Your task to perform on an android device: turn pop-ups on in chrome Image 0: 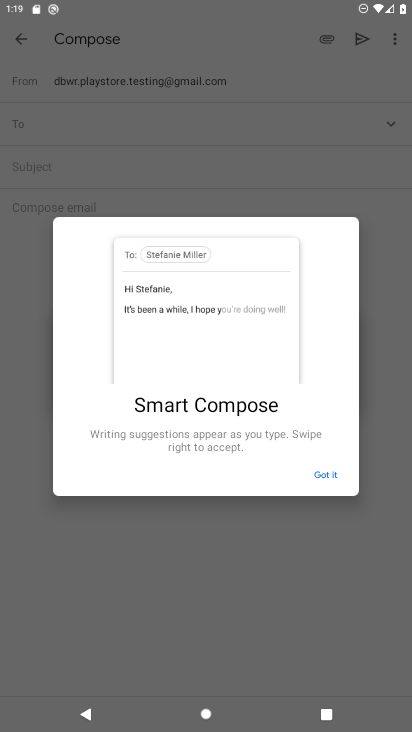
Step 0: press home button
Your task to perform on an android device: turn pop-ups on in chrome Image 1: 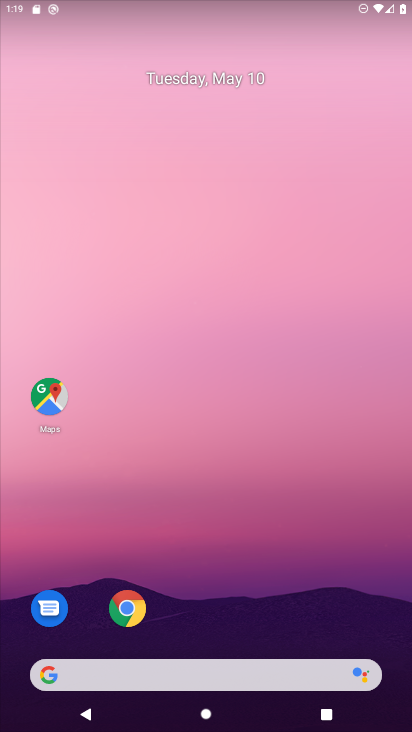
Step 1: drag from (272, 594) to (241, 182)
Your task to perform on an android device: turn pop-ups on in chrome Image 2: 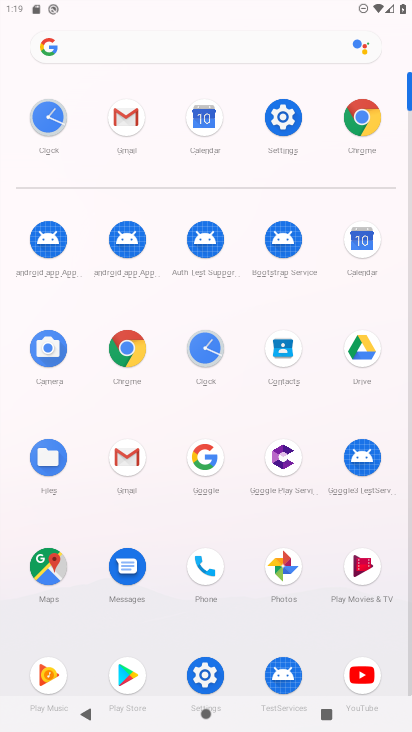
Step 2: click (123, 351)
Your task to perform on an android device: turn pop-ups on in chrome Image 3: 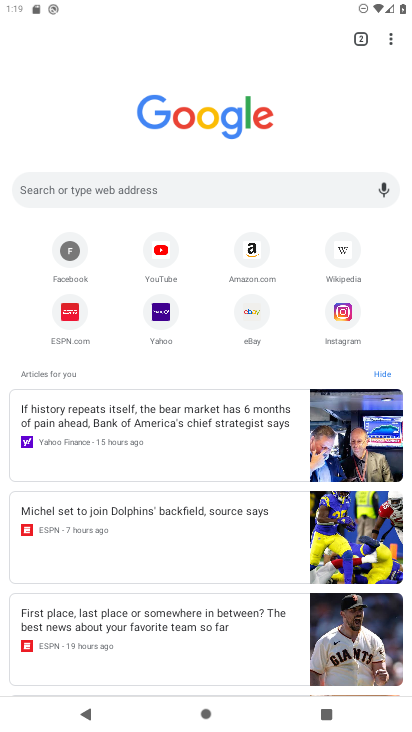
Step 3: drag from (400, 45) to (238, 328)
Your task to perform on an android device: turn pop-ups on in chrome Image 4: 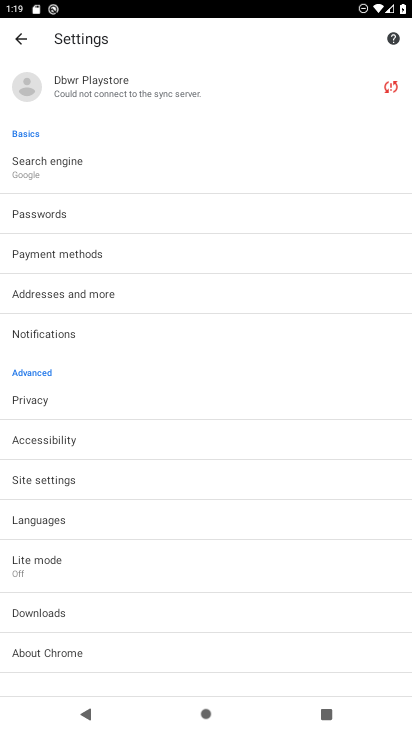
Step 4: click (66, 488)
Your task to perform on an android device: turn pop-ups on in chrome Image 5: 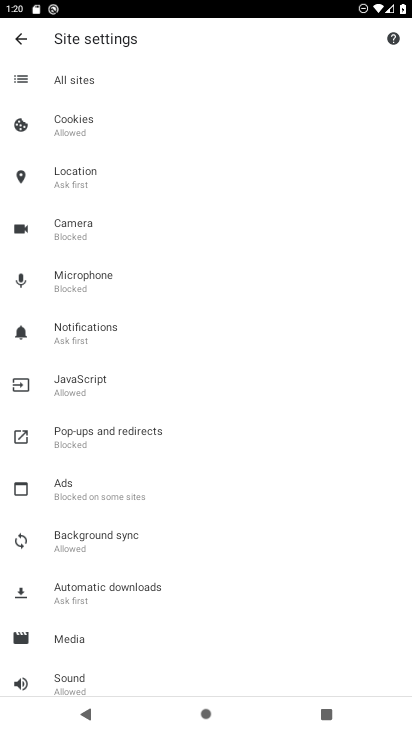
Step 5: click (174, 447)
Your task to perform on an android device: turn pop-ups on in chrome Image 6: 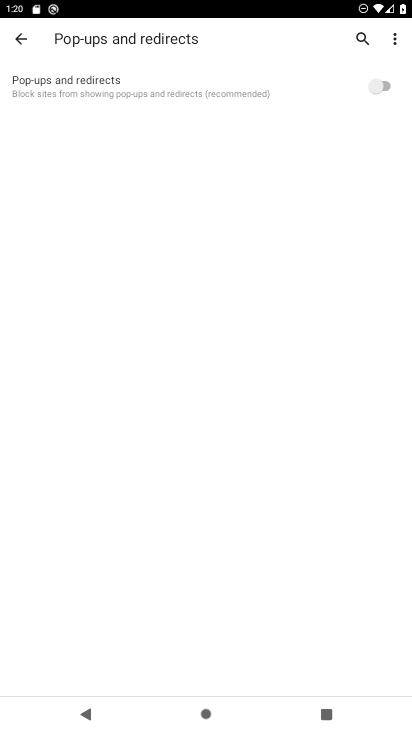
Step 6: click (387, 89)
Your task to perform on an android device: turn pop-ups on in chrome Image 7: 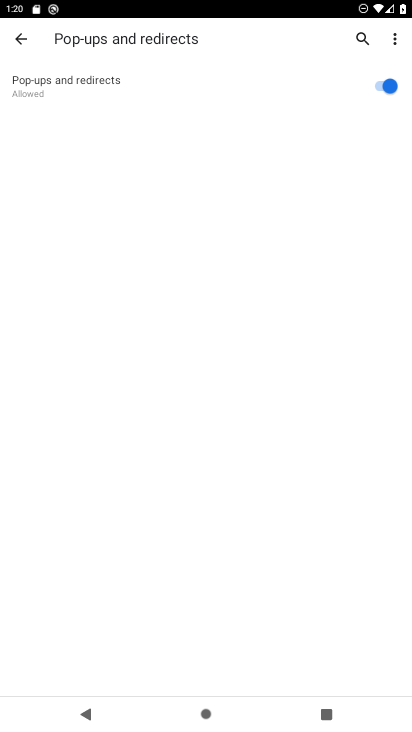
Step 7: task complete